Your task to perform on an android device: install app "TextNow: Call + Text Unlimited" Image 0: 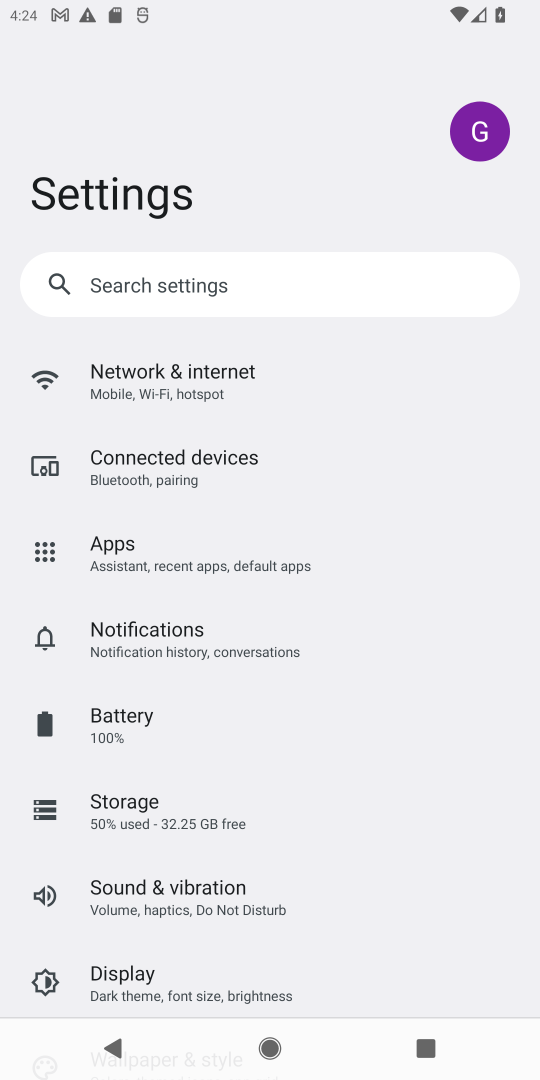
Step 0: press home button
Your task to perform on an android device: install app "TextNow: Call + Text Unlimited" Image 1: 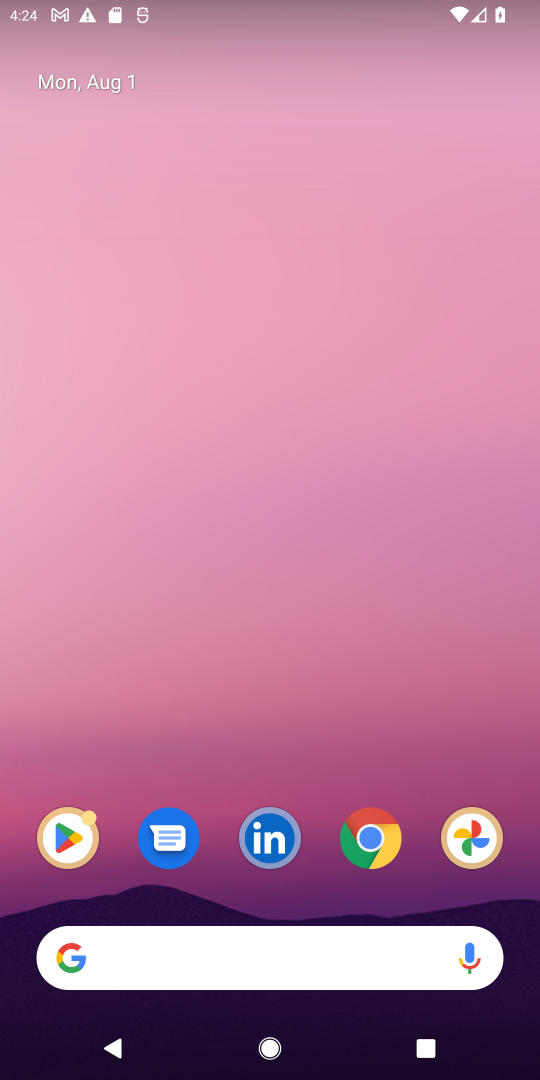
Step 1: click (82, 841)
Your task to perform on an android device: install app "TextNow: Call + Text Unlimited" Image 2: 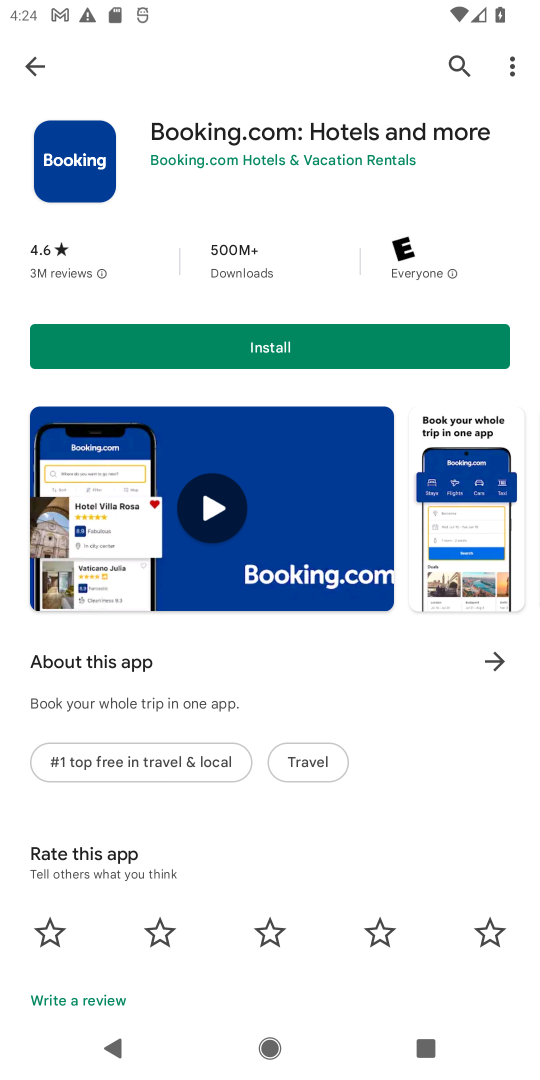
Step 2: click (453, 57)
Your task to perform on an android device: install app "TextNow: Call + Text Unlimited" Image 3: 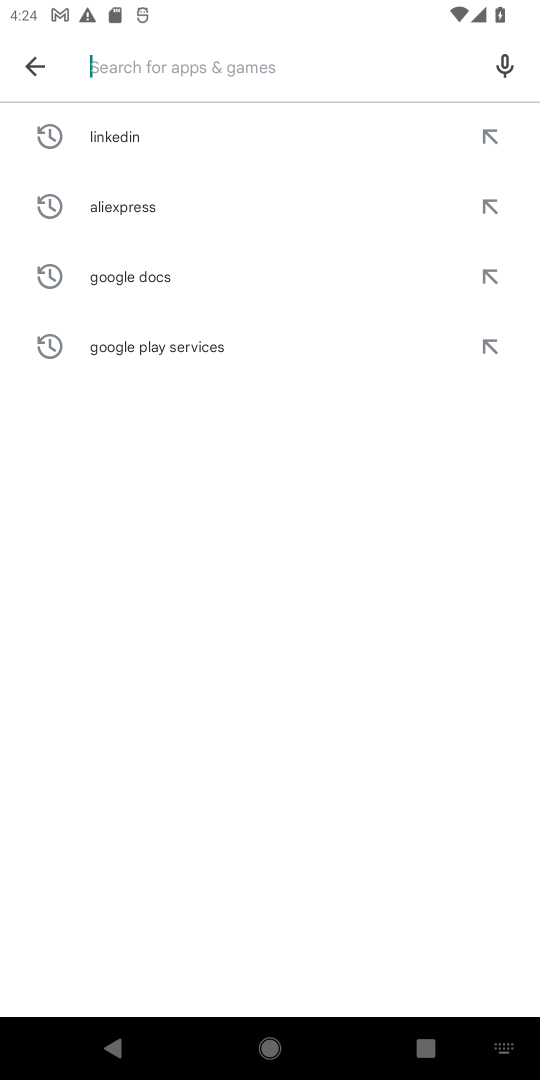
Step 3: type "TextNow: Call + Text Unlimited"
Your task to perform on an android device: install app "TextNow: Call + Text Unlimited" Image 4: 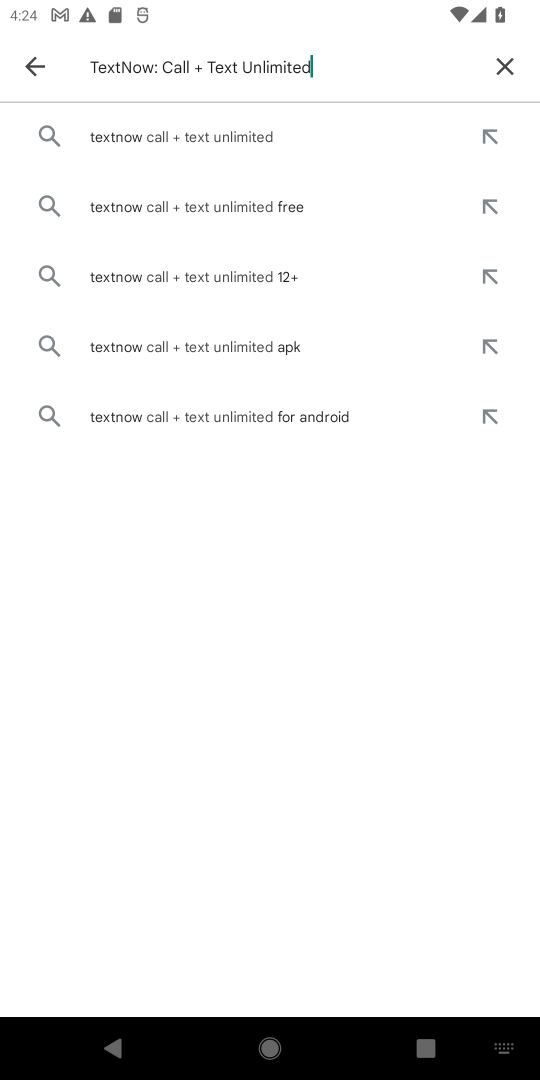
Step 4: click (291, 131)
Your task to perform on an android device: install app "TextNow: Call + Text Unlimited" Image 5: 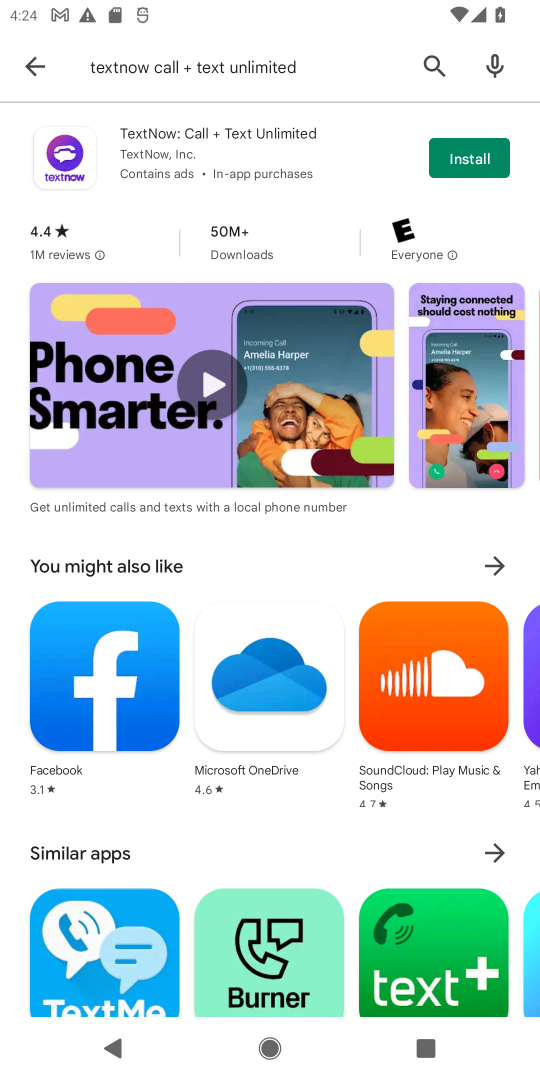
Step 5: click (470, 157)
Your task to perform on an android device: install app "TextNow: Call + Text Unlimited" Image 6: 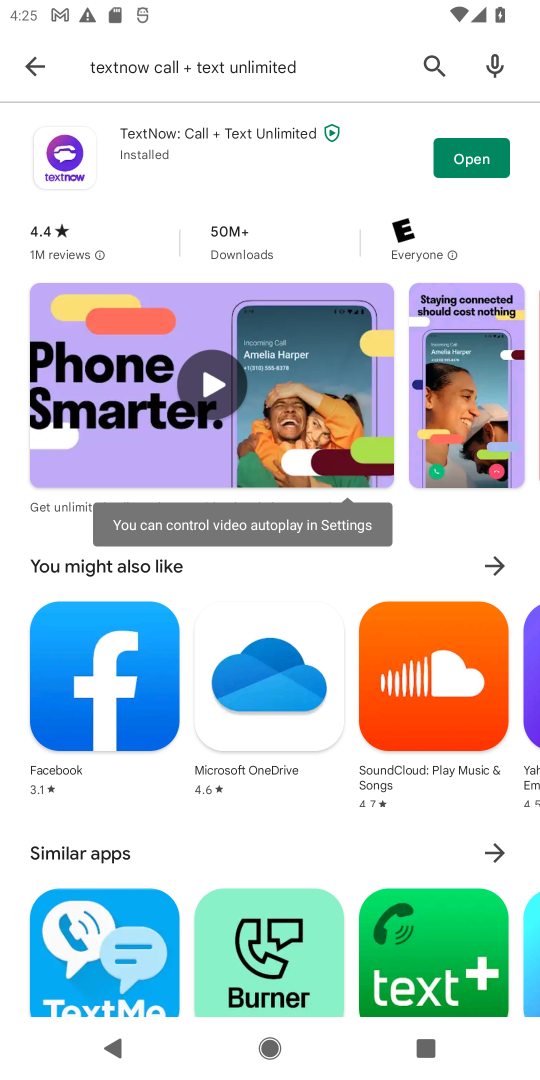
Step 6: task complete